Your task to perform on an android device: change the clock display to show seconds Image 0: 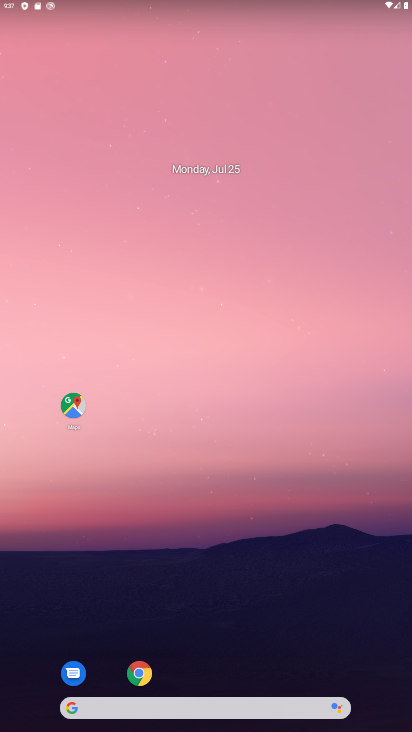
Step 0: drag from (292, 640) to (388, 2)
Your task to perform on an android device: change the clock display to show seconds Image 1: 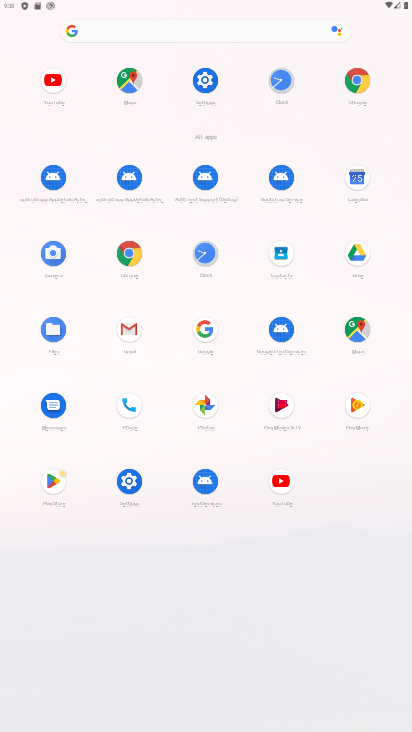
Step 1: click (197, 248)
Your task to perform on an android device: change the clock display to show seconds Image 2: 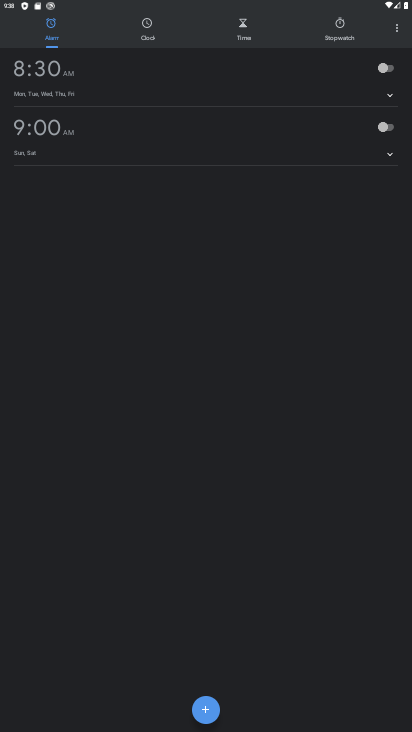
Step 2: click (399, 31)
Your task to perform on an android device: change the clock display to show seconds Image 3: 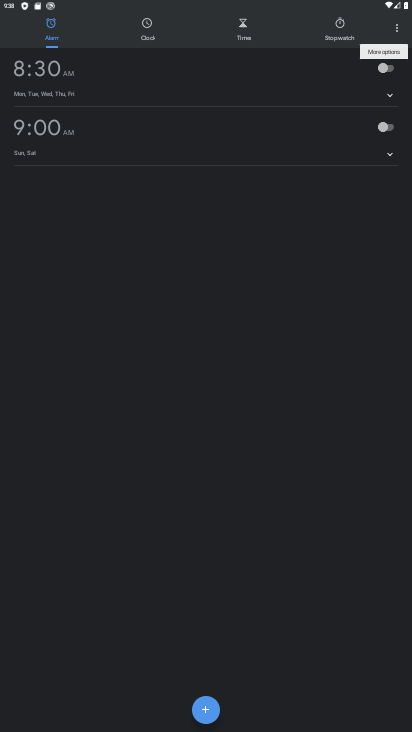
Step 3: click (399, 31)
Your task to perform on an android device: change the clock display to show seconds Image 4: 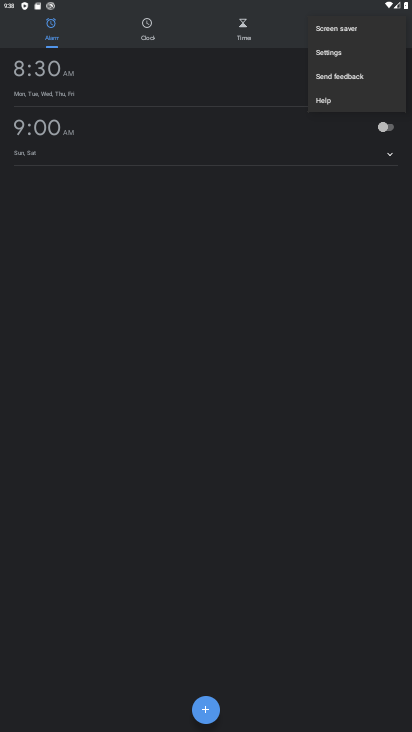
Step 4: click (330, 53)
Your task to perform on an android device: change the clock display to show seconds Image 5: 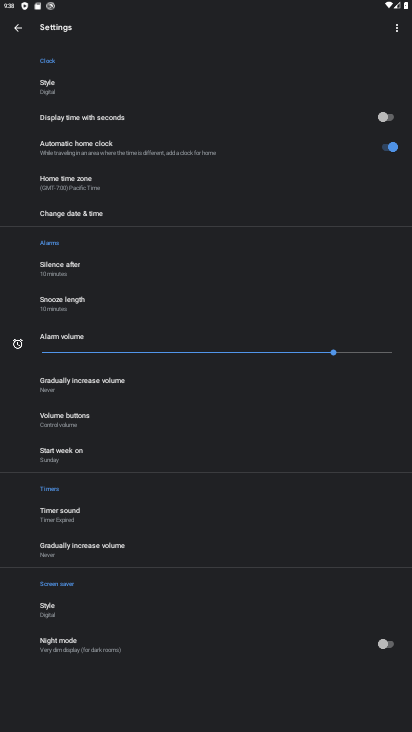
Step 5: click (114, 120)
Your task to perform on an android device: change the clock display to show seconds Image 6: 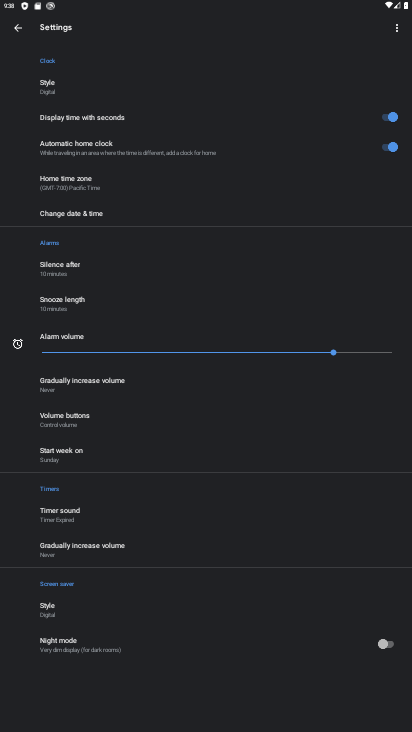
Step 6: task complete